Your task to perform on an android device: Open calendar and show me the third week of next month Image 0: 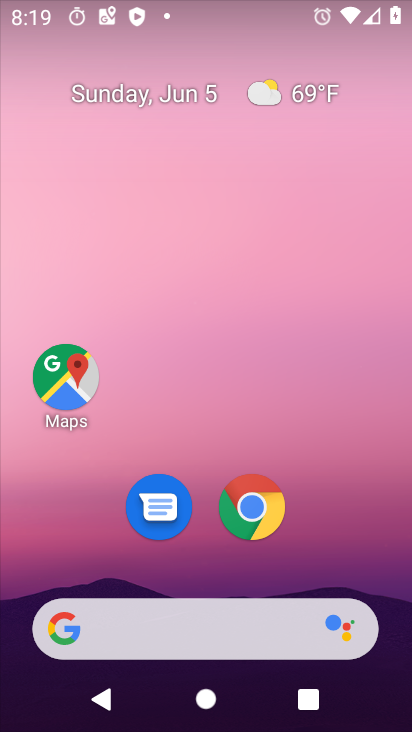
Step 0: drag from (331, 503) to (204, 3)
Your task to perform on an android device: Open calendar and show me the third week of next month Image 1: 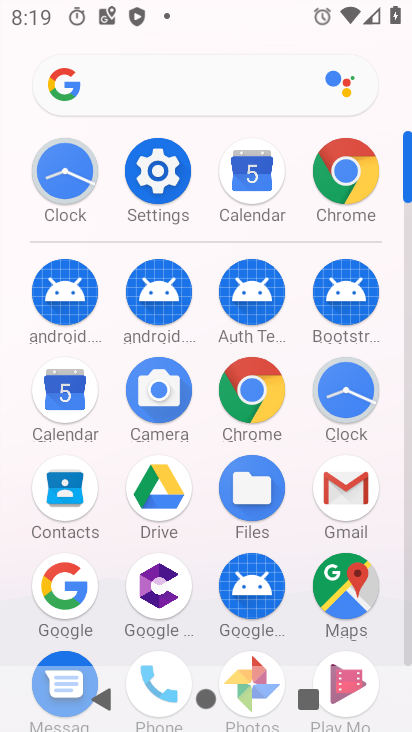
Step 1: click (61, 386)
Your task to perform on an android device: Open calendar and show me the third week of next month Image 2: 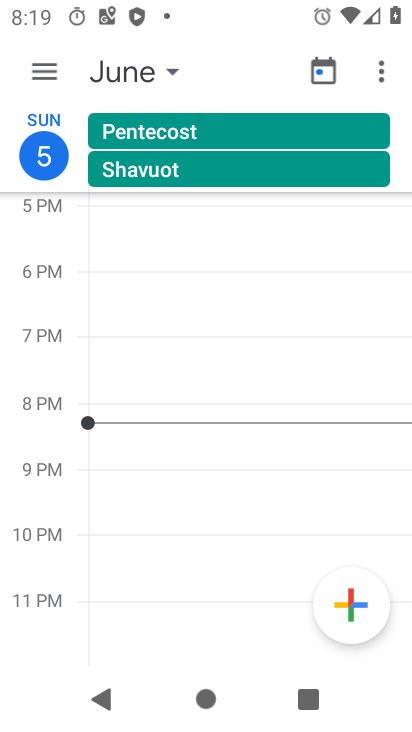
Step 2: click (148, 67)
Your task to perform on an android device: Open calendar and show me the third week of next month Image 3: 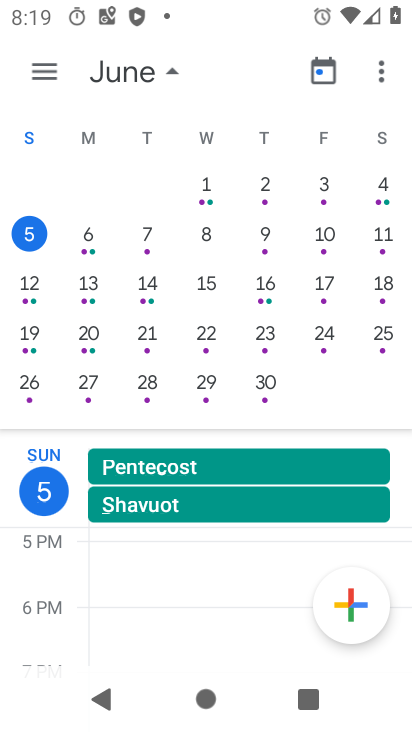
Step 3: drag from (375, 307) to (4, 299)
Your task to perform on an android device: Open calendar and show me the third week of next month Image 4: 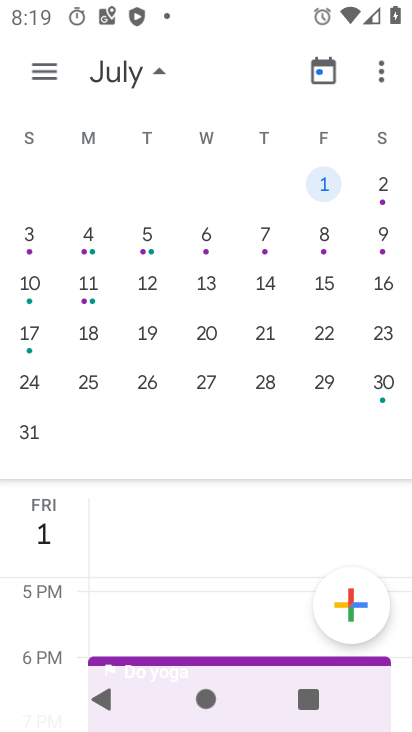
Step 4: click (34, 329)
Your task to perform on an android device: Open calendar and show me the third week of next month Image 5: 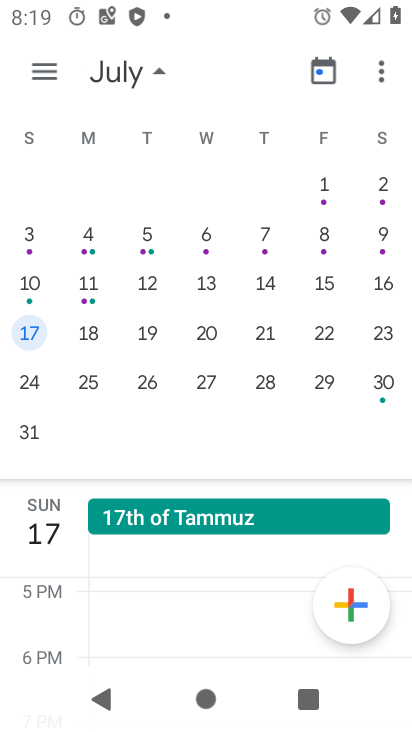
Step 5: click (45, 57)
Your task to perform on an android device: Open calendar and show me the third week of next month Image 6: 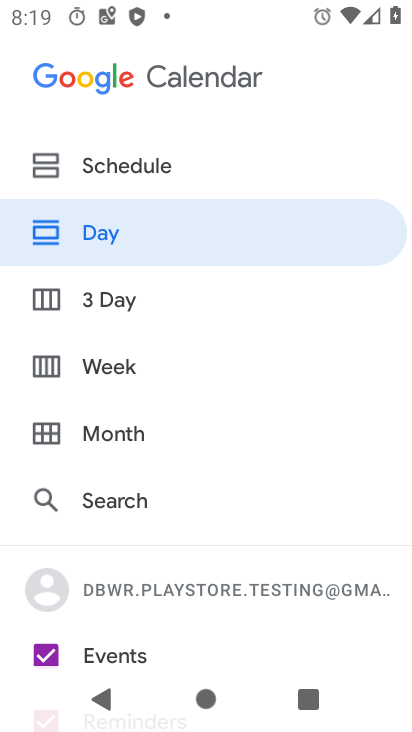
Step 6: click (128, 360)
Your task to perform on an android device: Open calendar and show me the third week of next month Image 7: 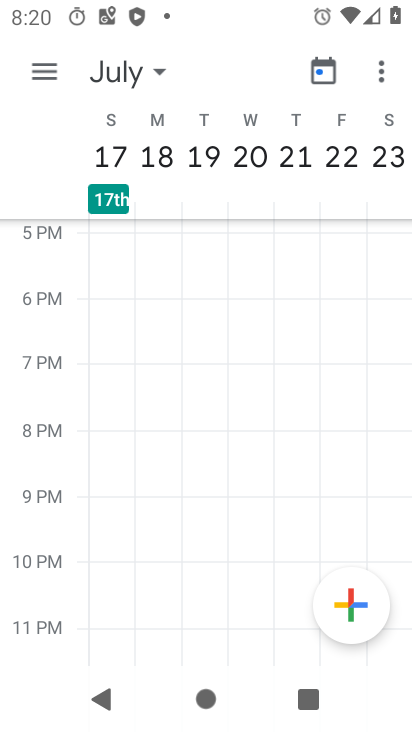
Step 7: task complete